Your task to perform on an android device: Open the calendar and show me this week's events? Image 0: 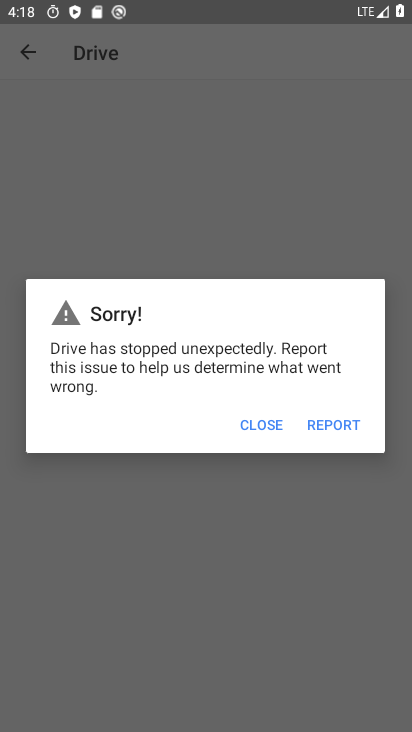
Step 0: click (256, 419)
Your task to perform on an android device: Open the calendar and show me this week's events? Image 1: 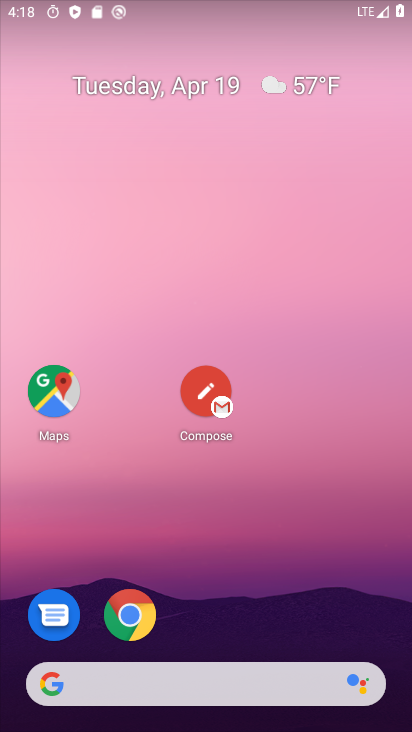
Step 1: drag from (264, 633) to (254, 37)
Your task to perform on an android device: Open the calendar and show me this week's events? Image 2: 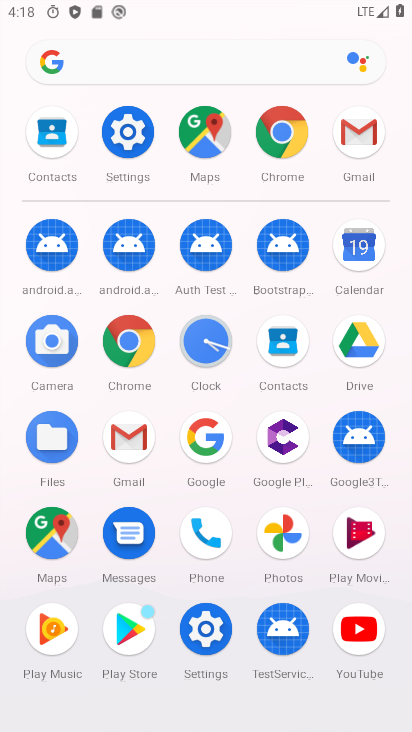
Step 2: click (370, 244)
Your task to perform on an android device: Open the calendar and show me this week's events? Image 3: 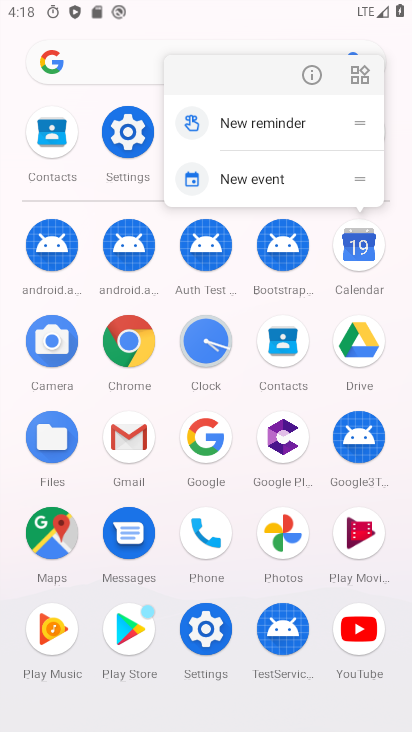
Step 3: click (370, 244)
Your task to perform on an android device: Open the calendar and show me this week's events? Image 4: 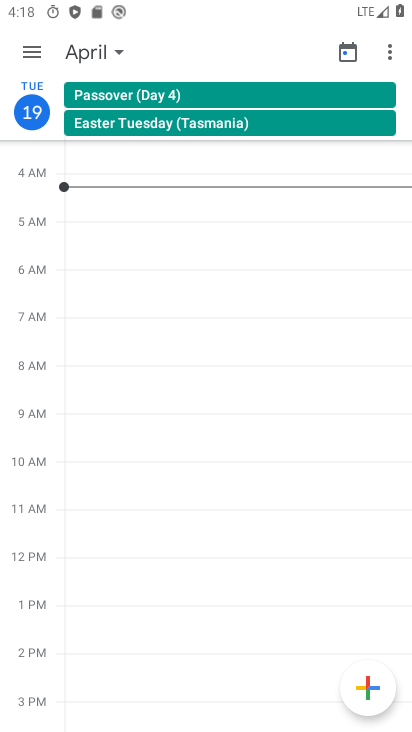
Step 4: click (112, 46)
Your task to perform on an android device: Open the calendar and show me this week's events? Image 5: 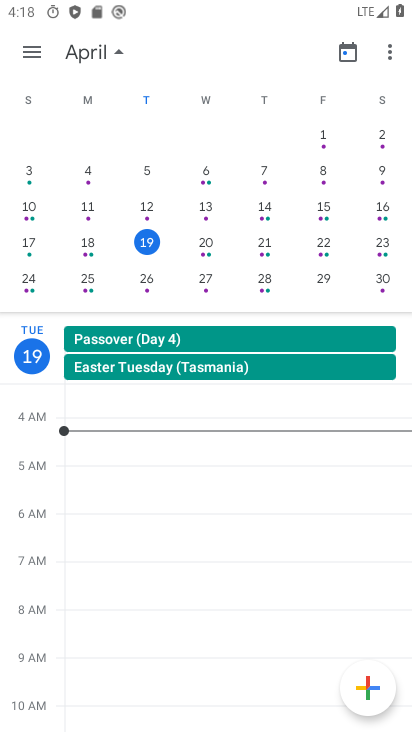
Step 5: click (267, 239)
Your task to perform on an android device: Open the calendar and show me this week's events? Image 6: 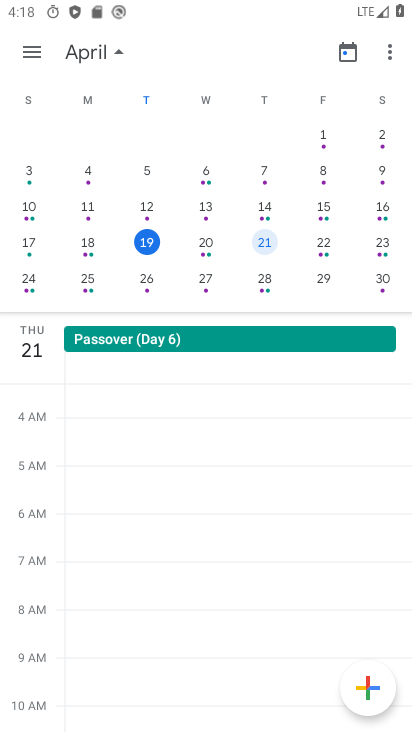
Step 6: click (38, 45)
Your task to perform on an android device: Open the calendar and show me this week's events? Image 7: 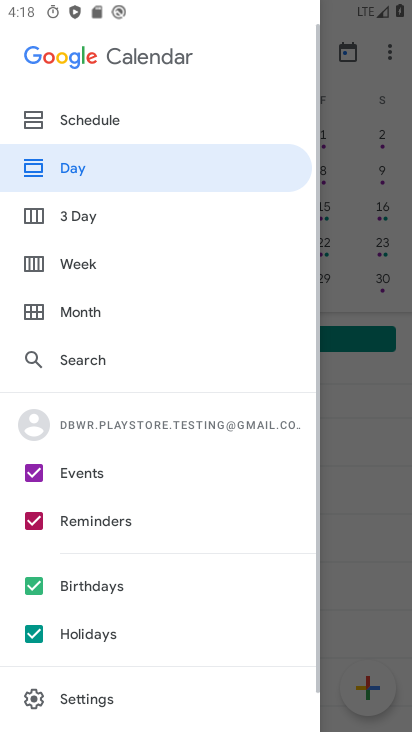
Step 7: click (82, 259)
Your task to perform on an android device: Open the calendar and show me this week's events? Image 8: 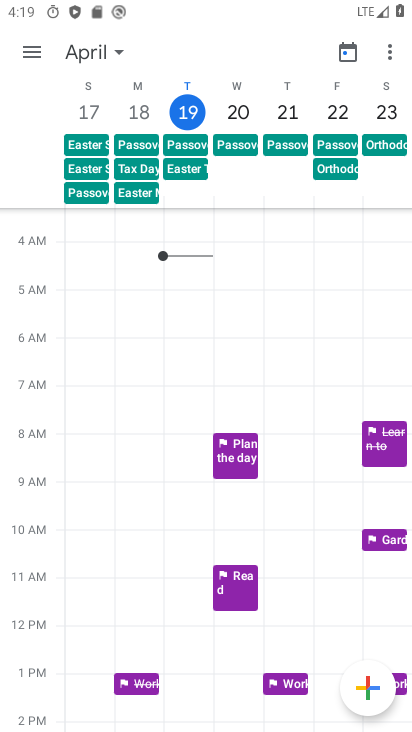
Step 8: task complete